Your task to perform on an android device: Check the news Image 0: 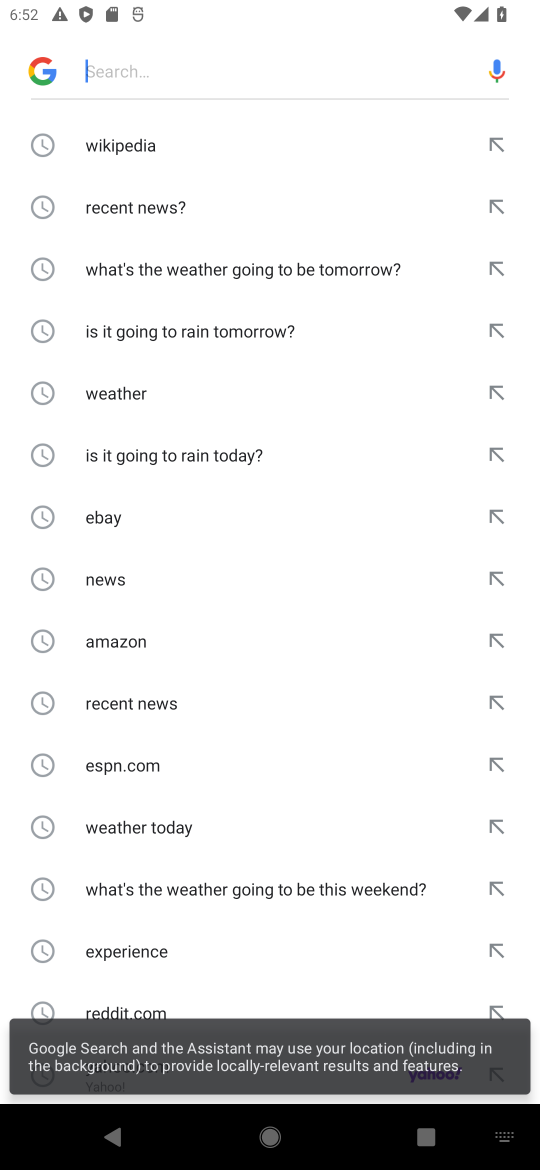
Step 0: press home button
Your task to perform on an android device: Check the news Image 1: 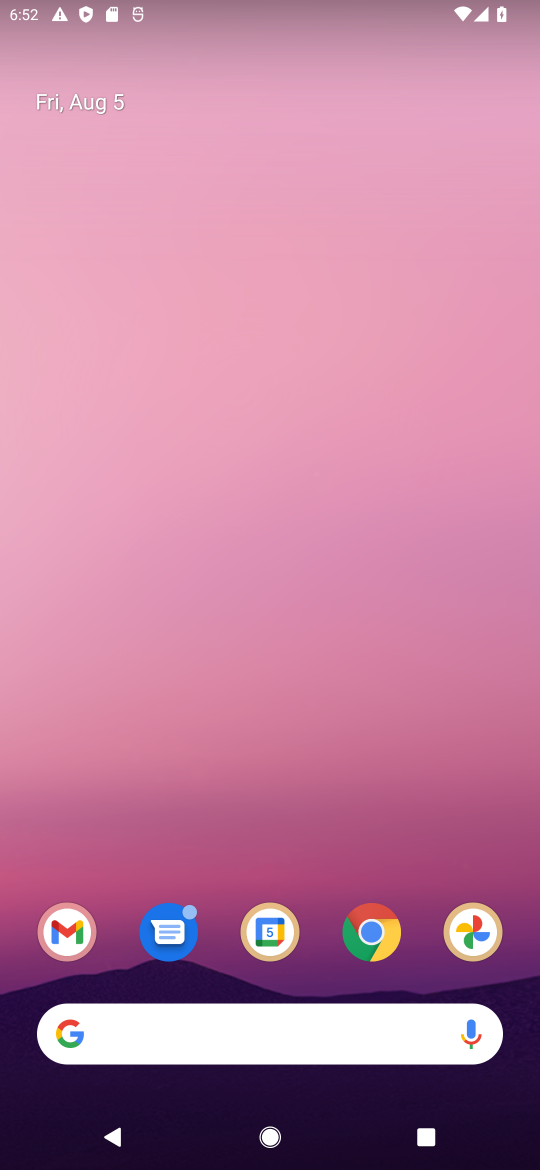
Step 1: click (372, 931)
Your task to perform on an android device: Check the news Image 2: 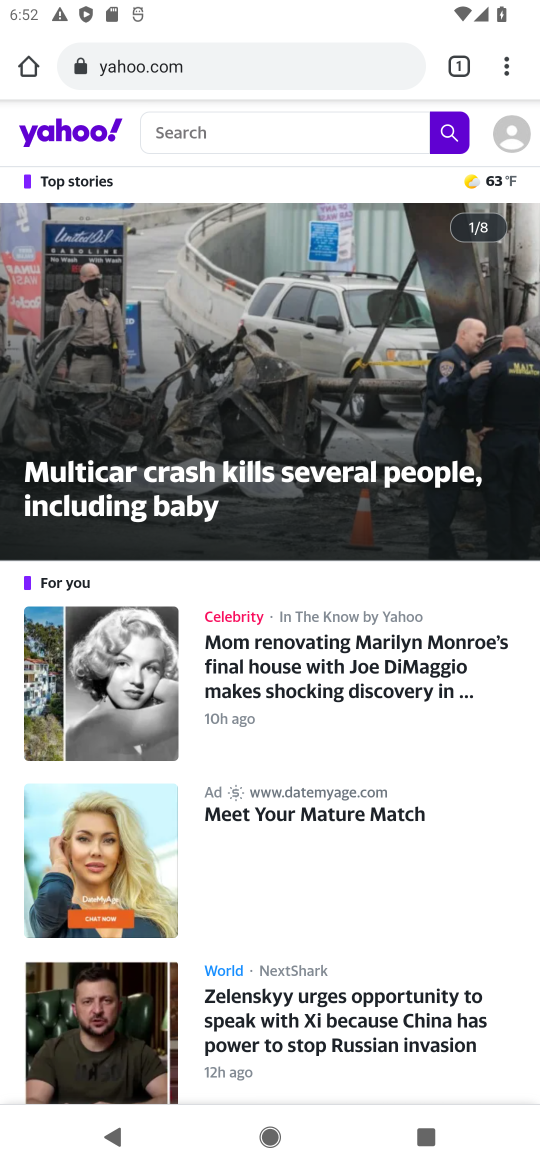
Step 2: click (286, 70)
Your task to perform on an android device: Check the news Image 3: 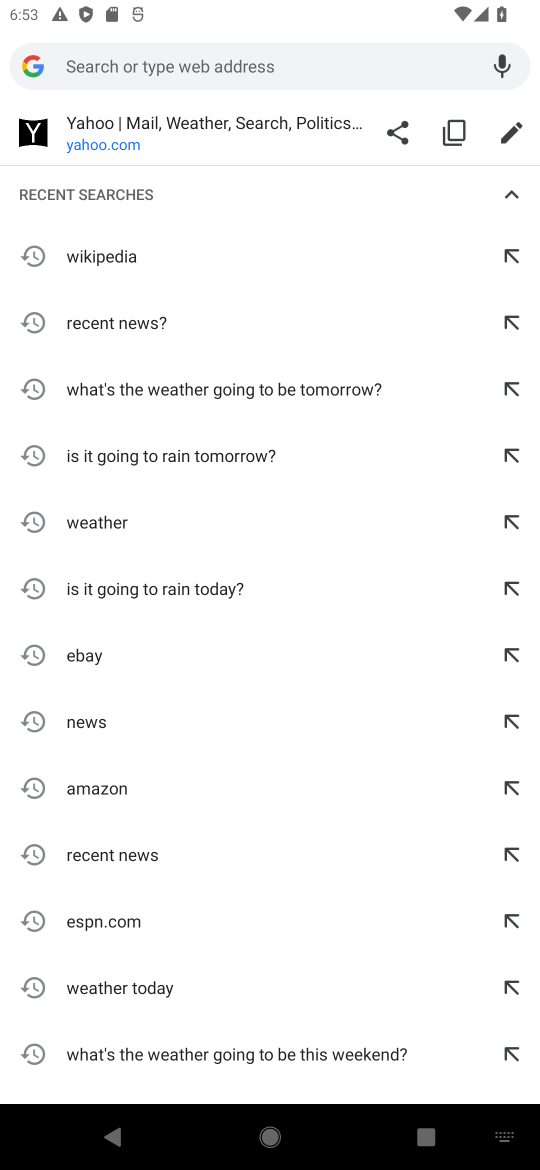
Step 3: type "news"
Your task to perform on an android device: Check the news Image 4: 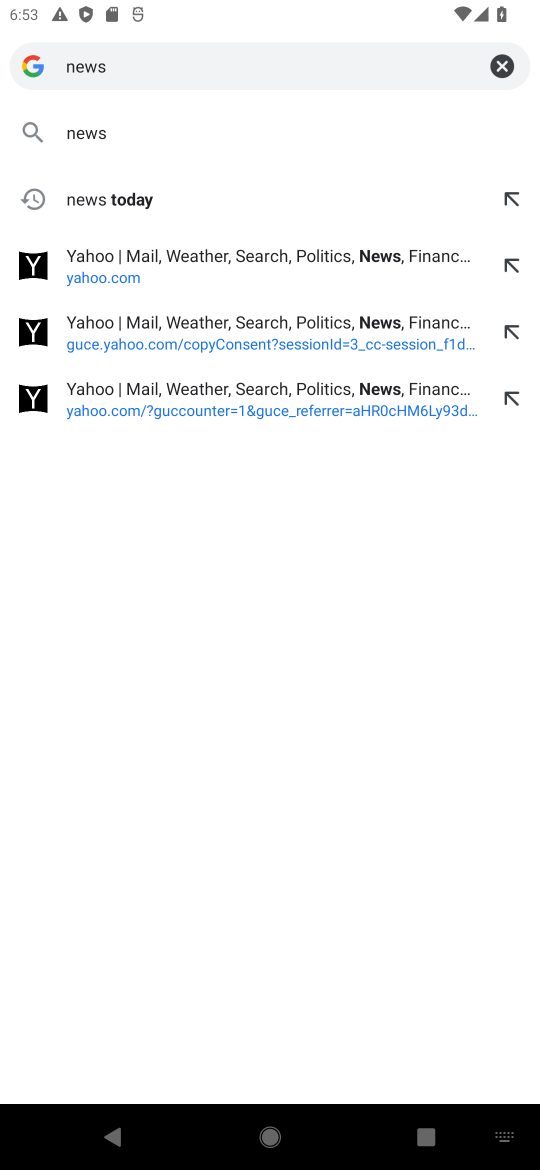
Step 4: click (89, 122)
Your task to perform on an android device: Check the news Image 5: 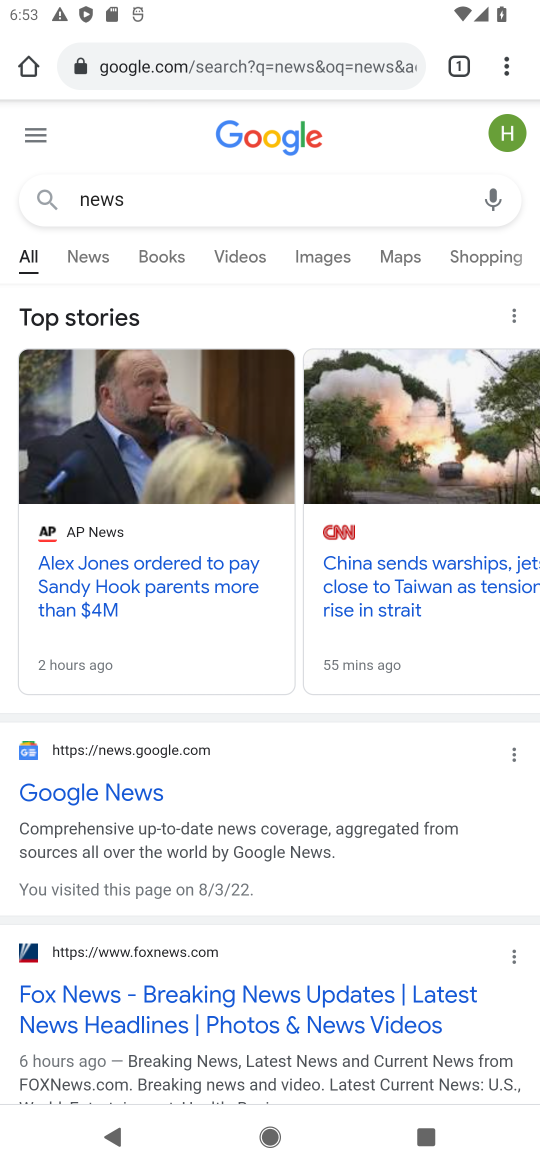
Step 5: click (202, 578)
Your task to perform on an android device: Check the news Image 6: 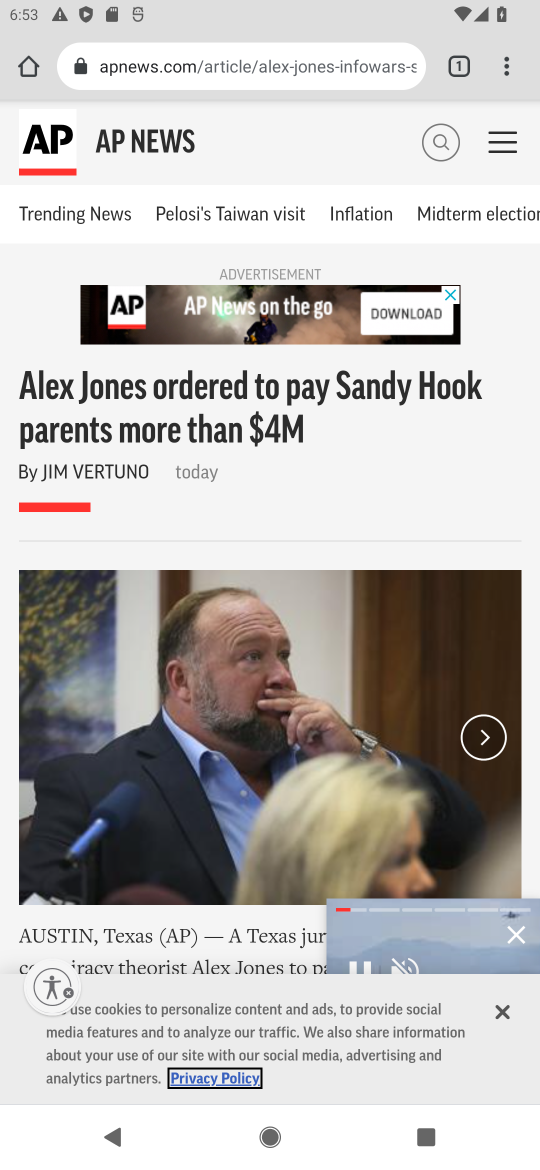
Step 6: task complete